Your task to perform on an android device: Add "macbook pro 15 inch" to the cart on walmart.com Image 0: 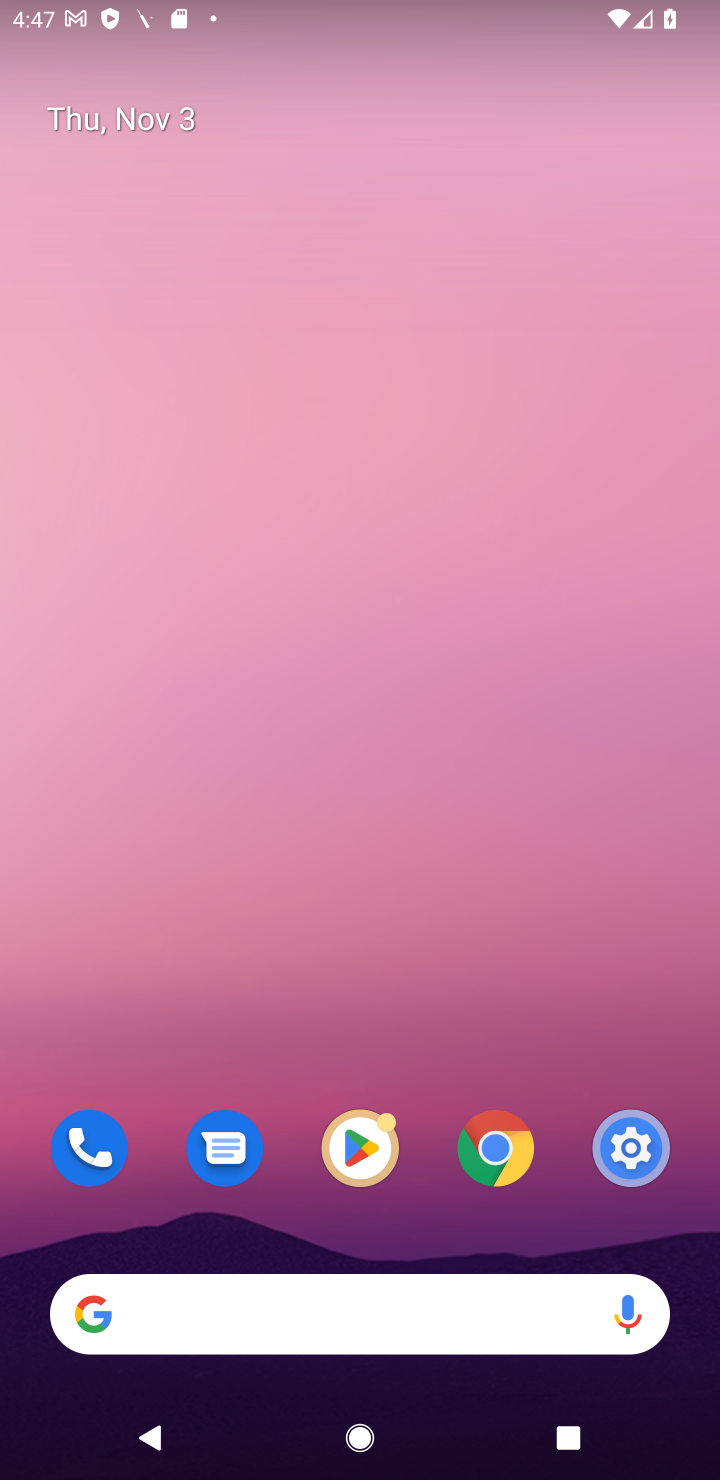
Step 0: click (207, 1293)
Your task to perform on an android device: Add "macbook pro 15 inch" to the cart on walmart.com Image 1: 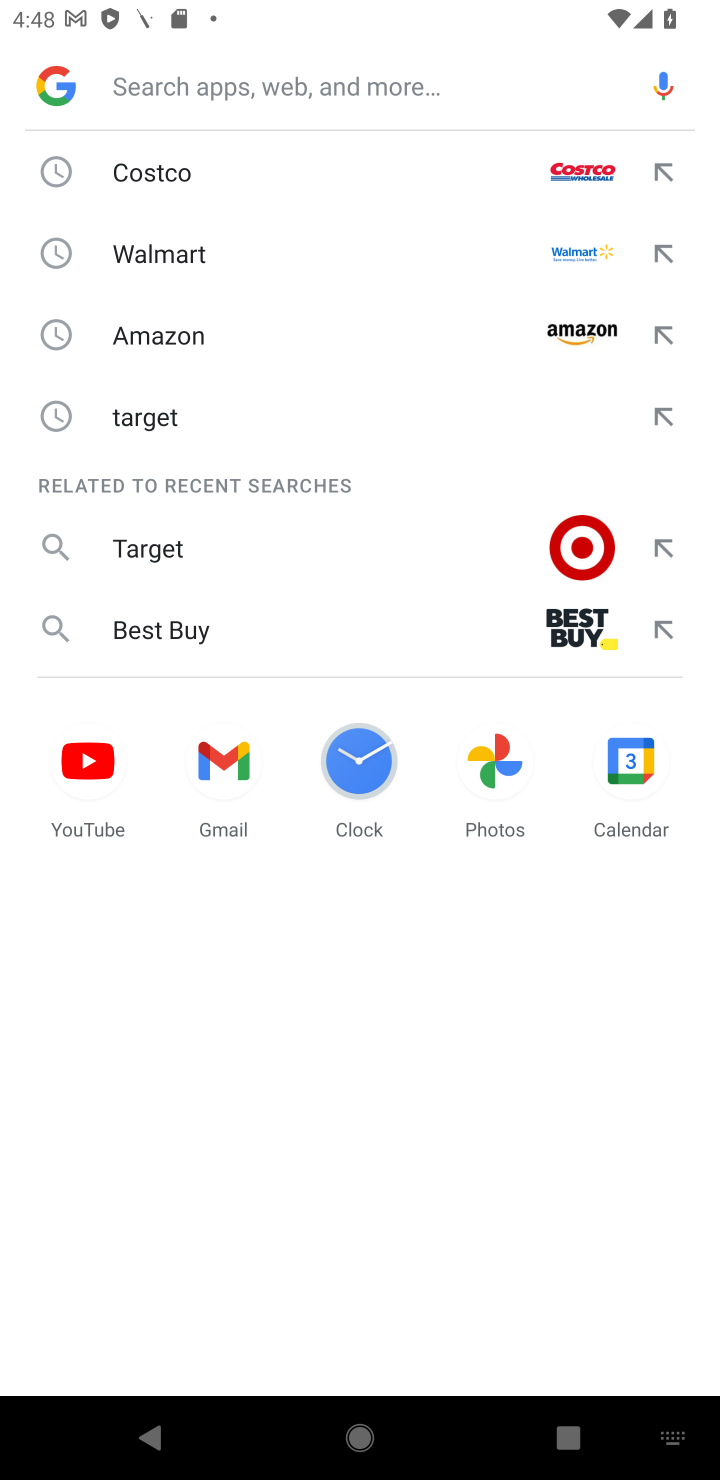
Step 1: click (203, 271)
Your task to perform on an android device: Add "macbook pro 15 inch" to the cart on walmart.com Image 2: 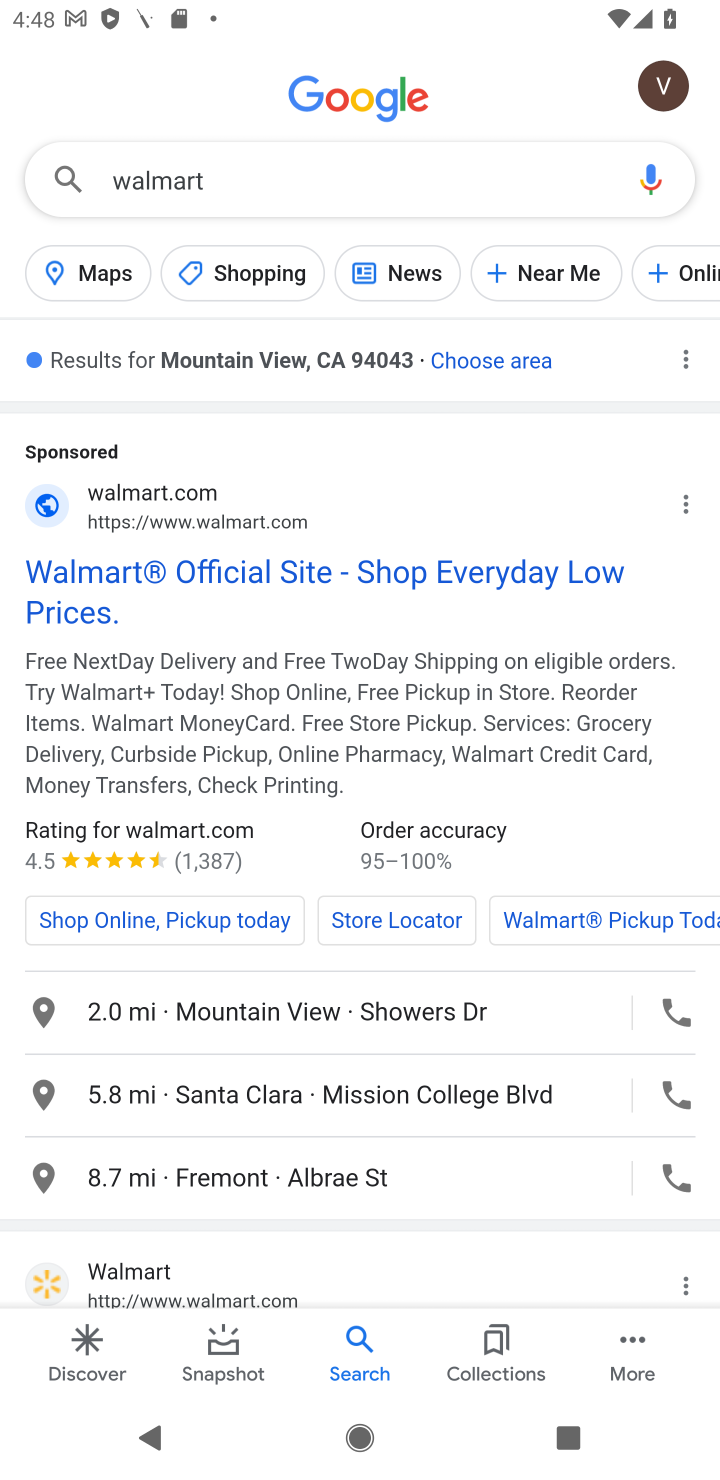
Step 2: click (157, 480)
Your task to perform on an android device: Add "macbook pro 15 inch" to the cart on walmart.com Image 3: 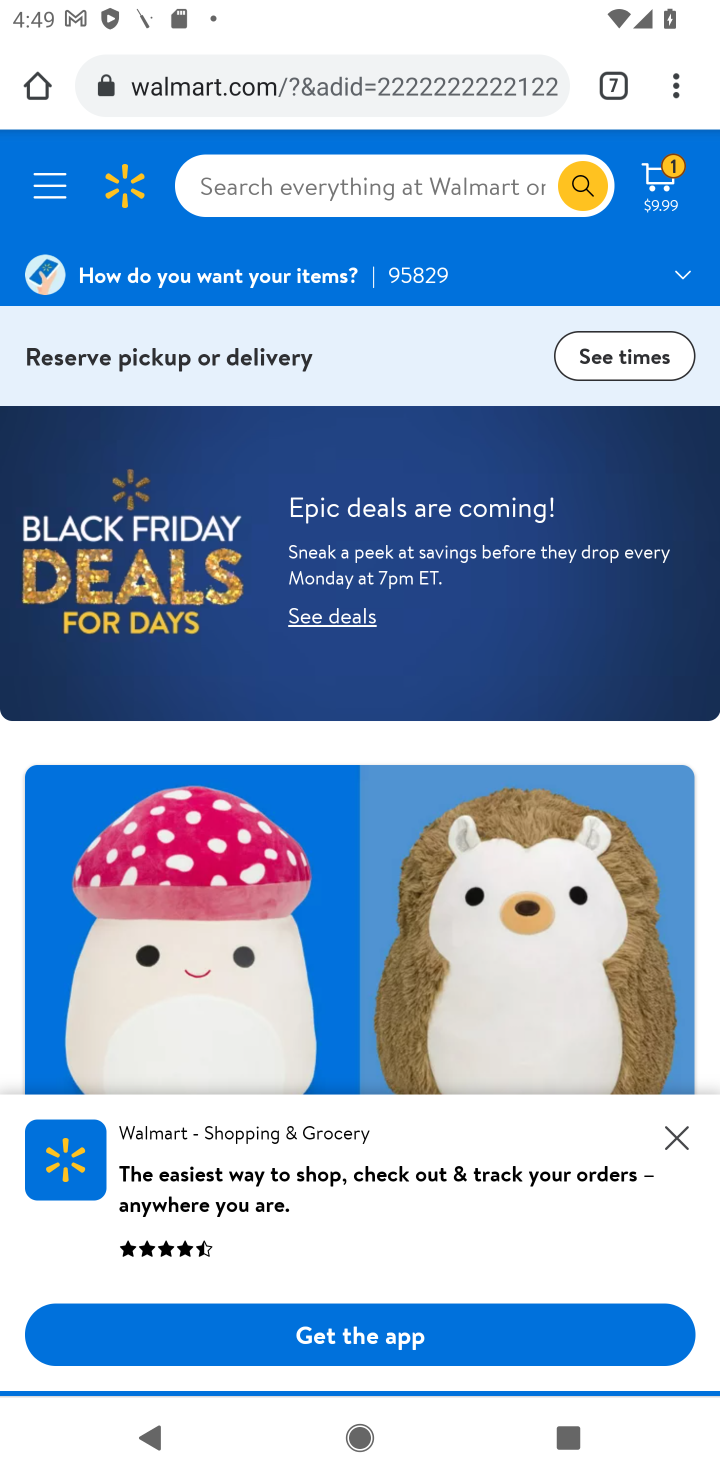
Step 3: click (296, 174)
Your task to perform on an android device: Add "macbook pro 15 inch" to the cart on walmart.com Image 4: 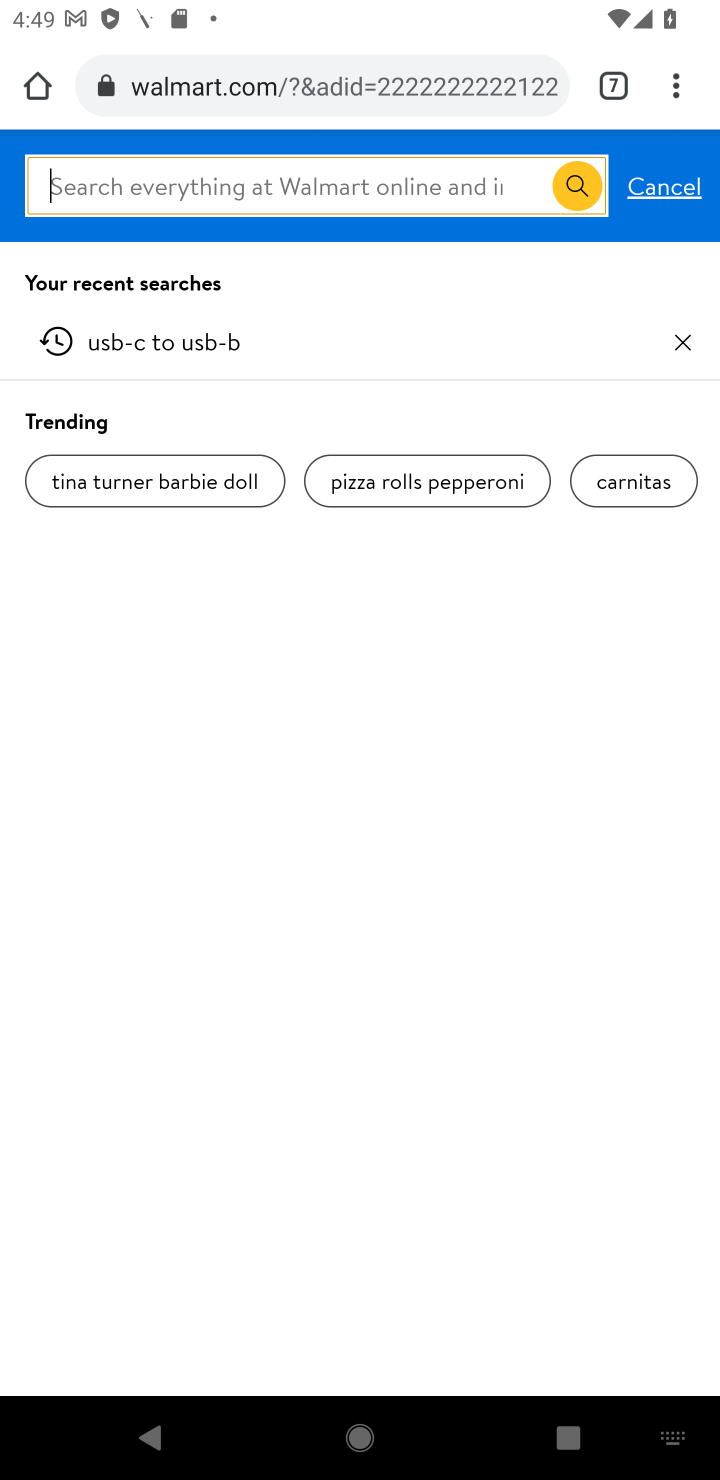
Step 4: type "macbook pro 15 inch"
Your task to perform on an android device: Add "macbook pro 15 inch" to the cart on walmart.com Image 5: 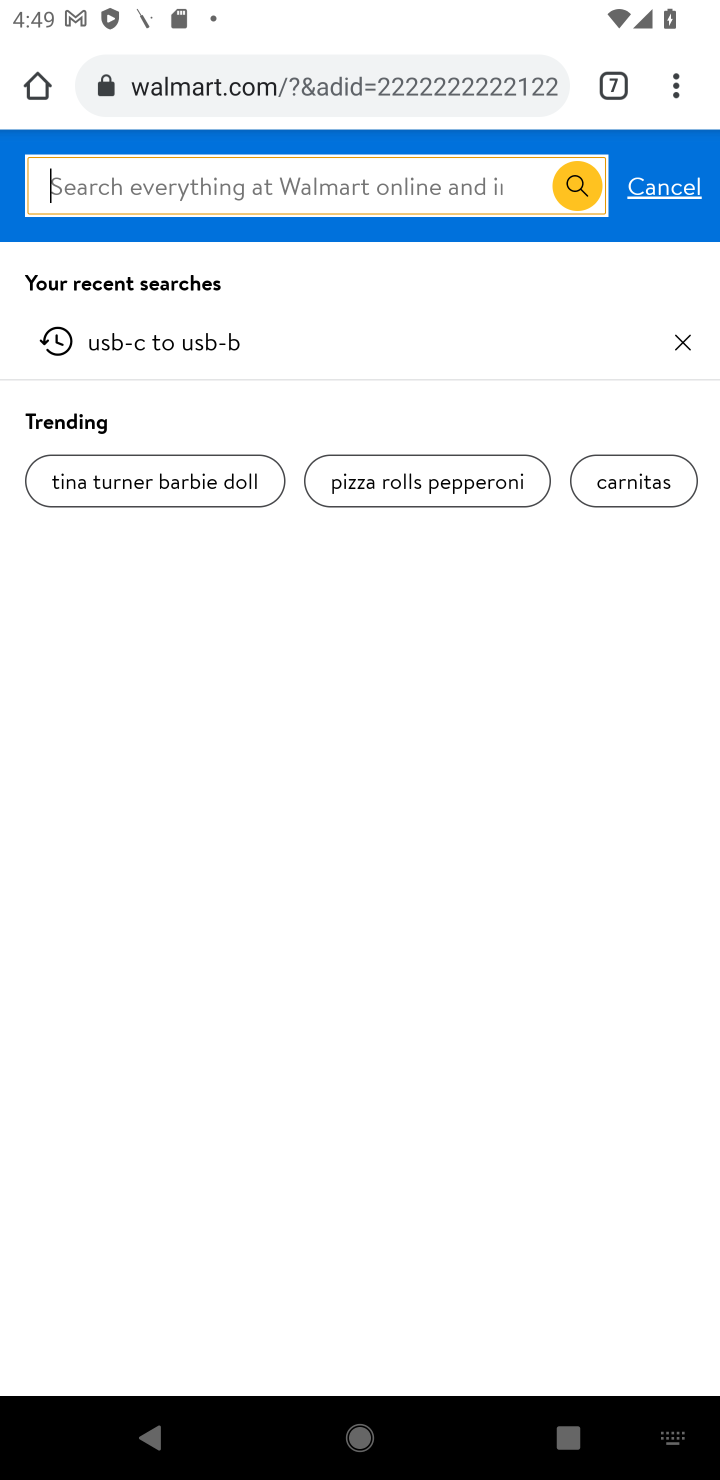
Step 5: type ""
Your task to perform on an android device: Add "macbook pro 15 inch" to the cart on walmart.com Image 6: 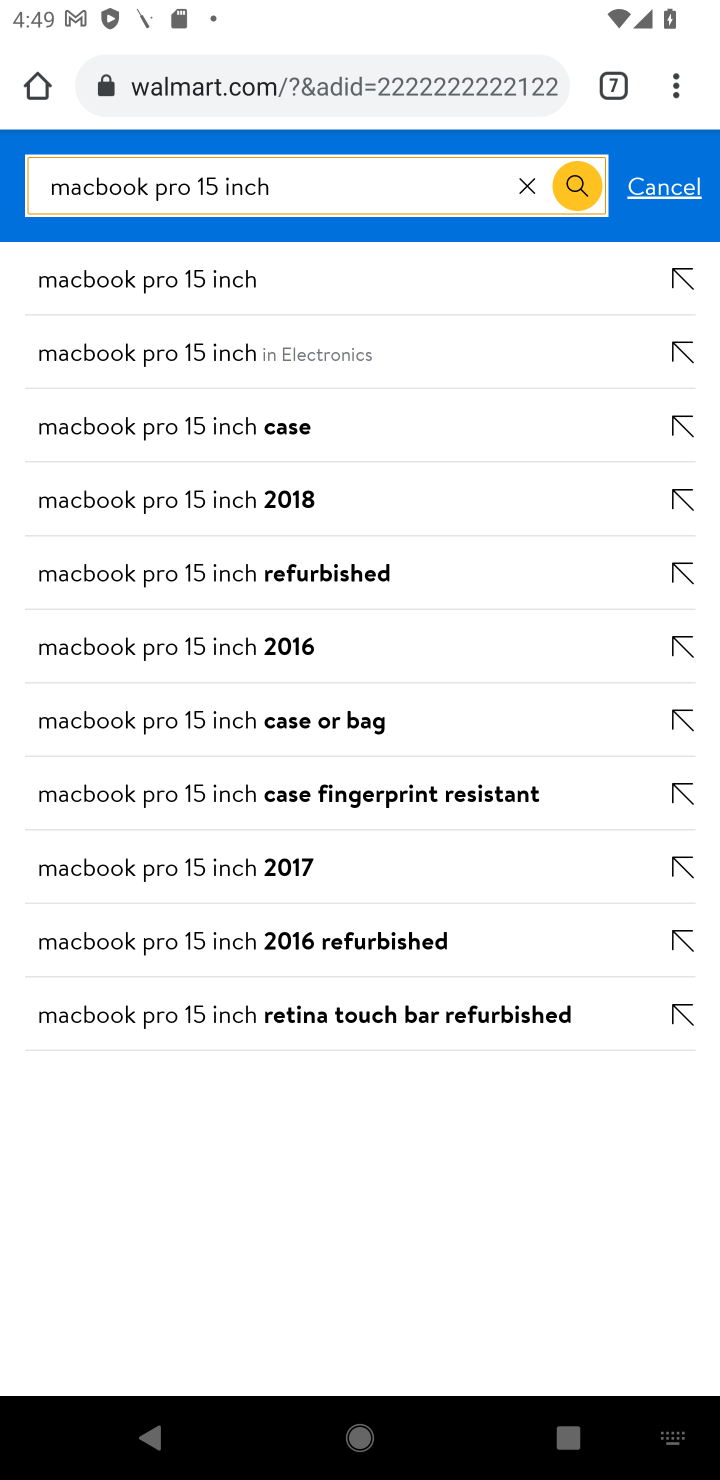
Step 6: click (338, 271)
Your task to perform on an android device: Add "macbook pro 15 inch" to the cart on walmart.com Image 7: 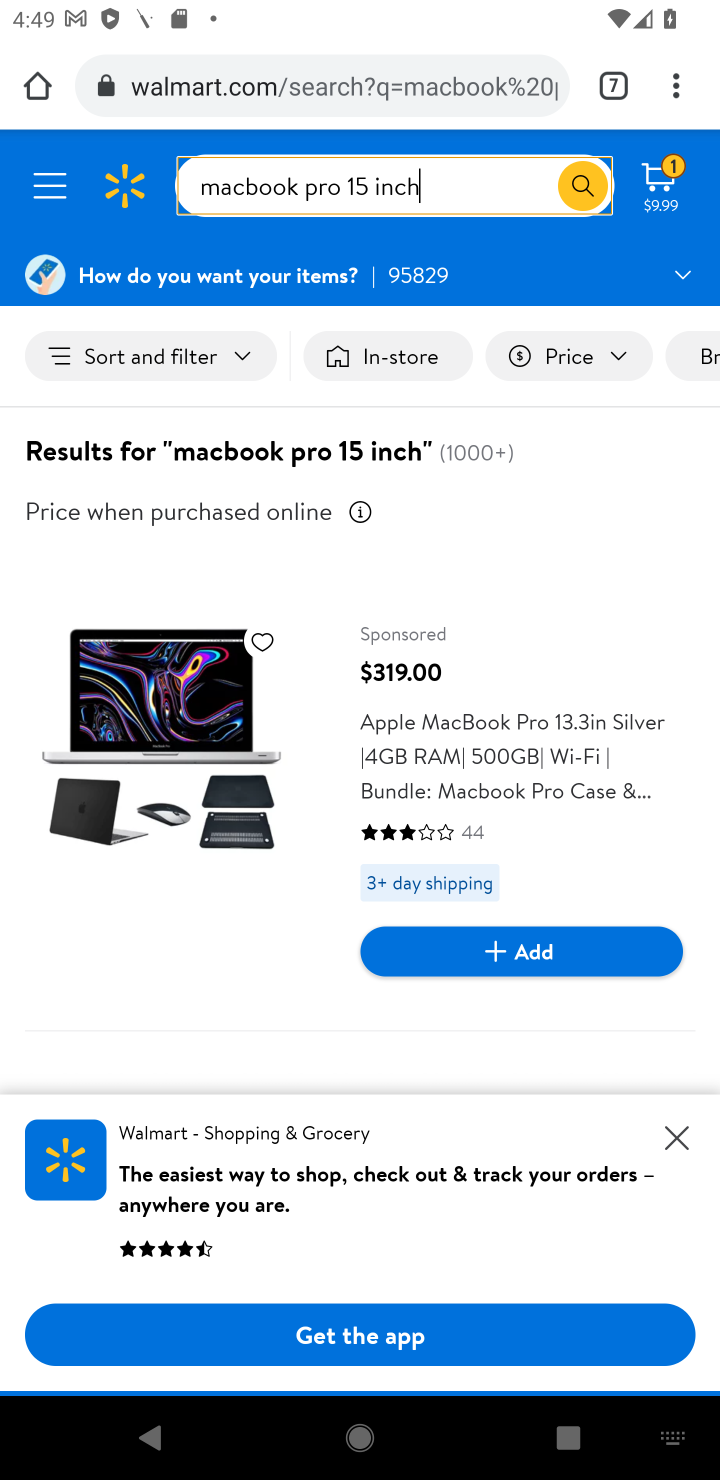
Step 7: task complete